Your task to perform on an android device: make emails show in primary in the gmail app Image 0: 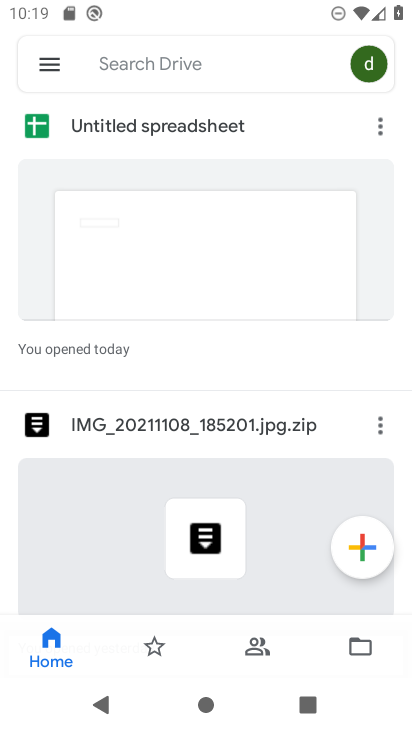
Step 0: press home button
Your task to perform on an android device: make emails show in primary in the gmail app Image 1: 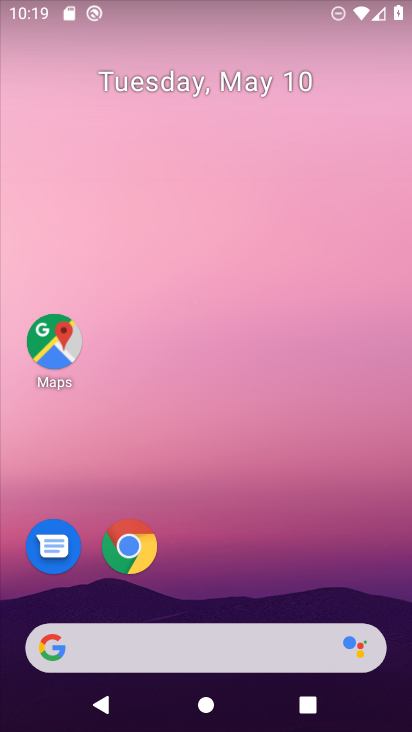
Step 1: drag from (323, 452) to (308, 37)
Your task to perform on an android device: make emails show in primary in the gmail app Image 2: 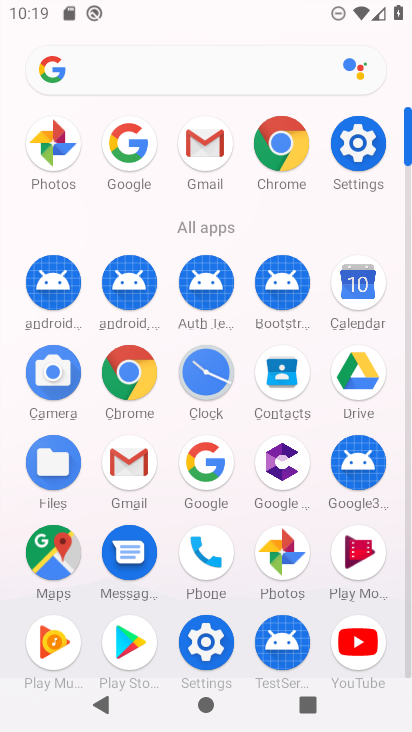
Step 2: click (123, 460)
Your task to perform on an android device: make emails show in primary in the gmail app Image 3: 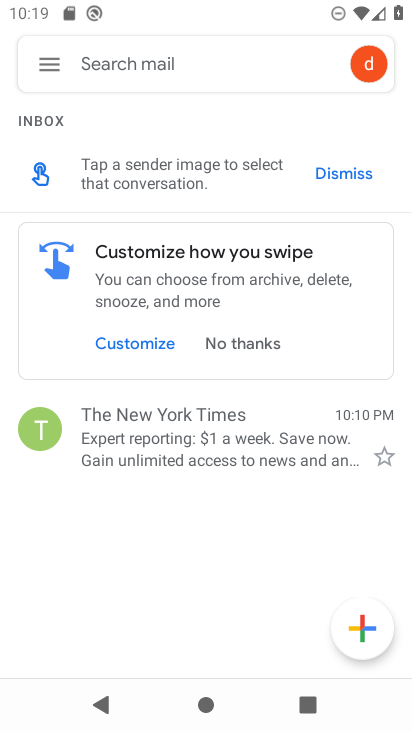
Step 3: click (56, 67)
Your task to perform on an android device: make emails show in primary in the gmail app Image 4: 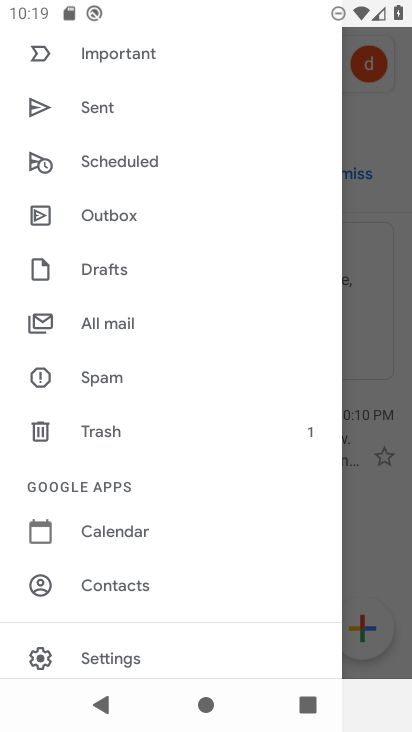
Step 4: drag from (143, 570) to (170, 192)
Your task to perform on an android device: make emails show in primary in the gmail app Image 5: 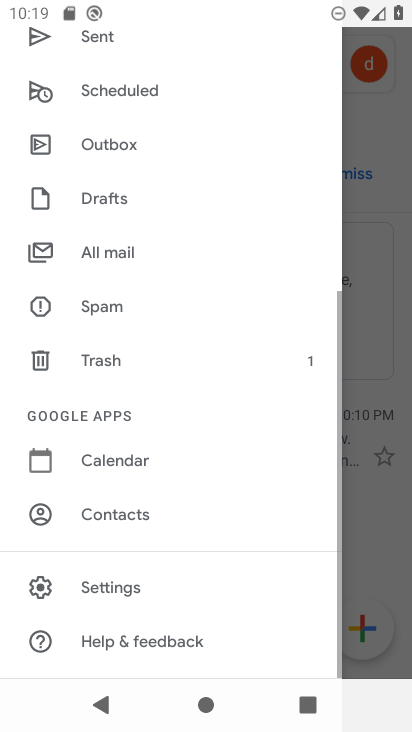
Step 5: click (106, 583)
Your task to perform on an android device: make emails show in primary in the gmail app Image 6: 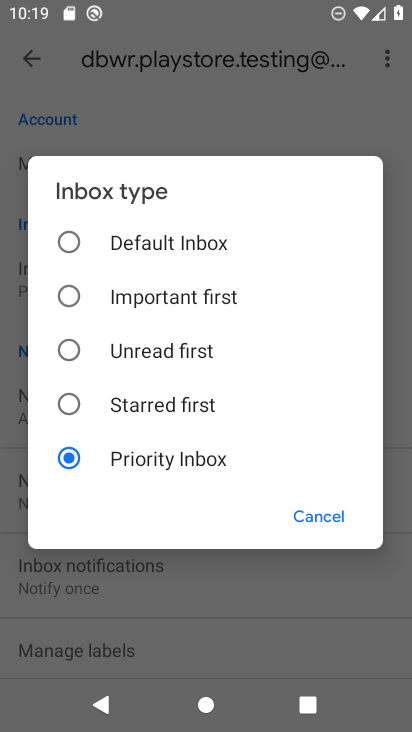
Step 6: click (168, 249)
Your task to perform on an android device: make emails show in primary in the gmail app Image 7: 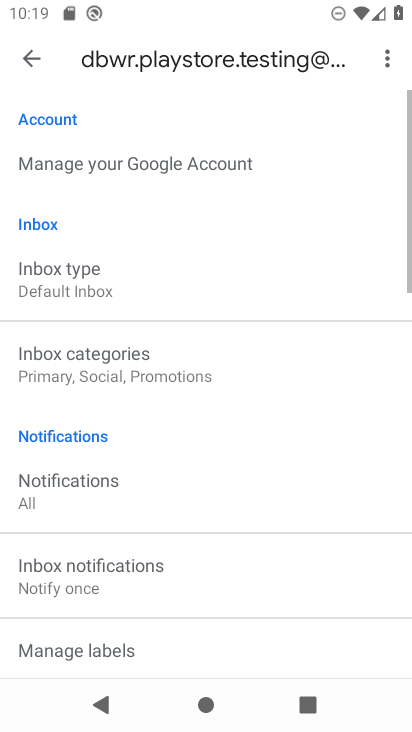
Step 7: click (120, 376)
Your task to perform on an android device: make emails show in primary in the gmail app Image 8: 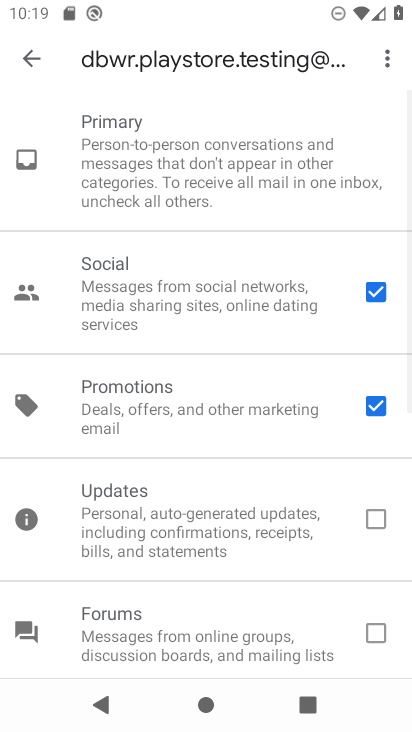
Step 8: task complete